Your task to perform on an android device: empty trash in google photos Image 0: 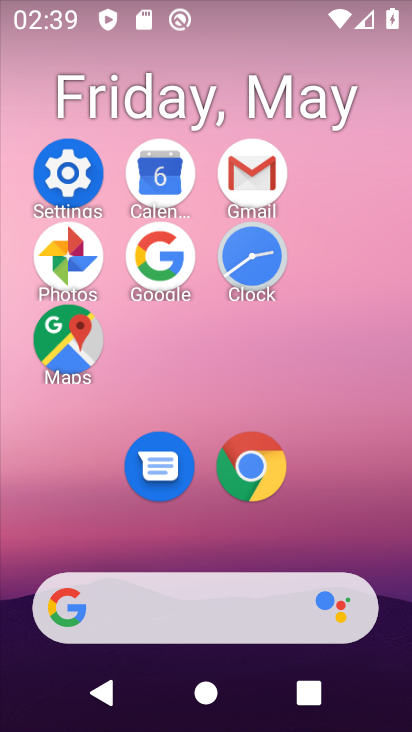
Step 0: click (71, 256)
Your task to perform on an android device: empty trash in google photos Image 1: 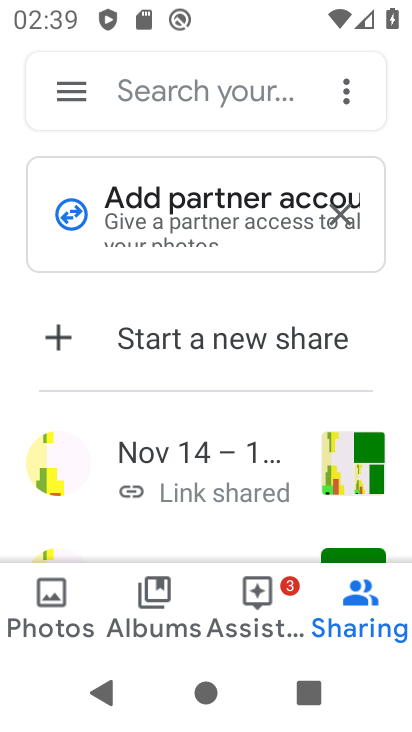
Step 1: click (75, 86)
Your task to perform on an android device: empty trash in google photos Image 2: 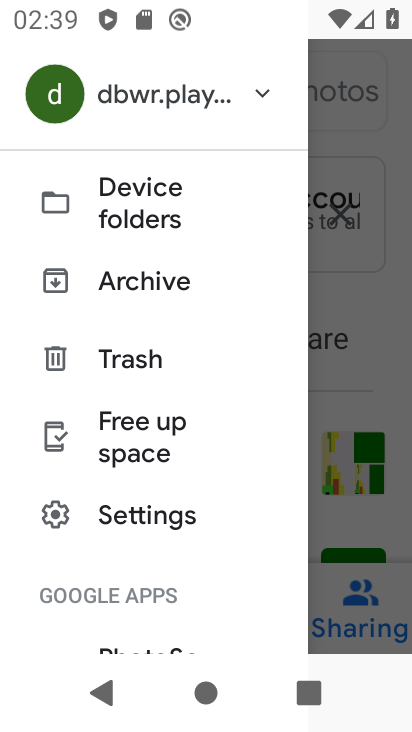
Step 2: click (141, 360)
Your task to perform on an android device: empty trash in google photos Image 3: 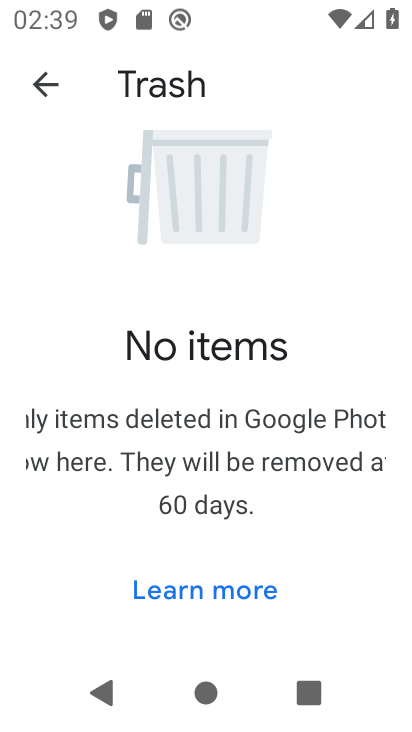
Step 3: task complete